Your task to perform on an android device: Do I have any events tomorrow? Image 0: 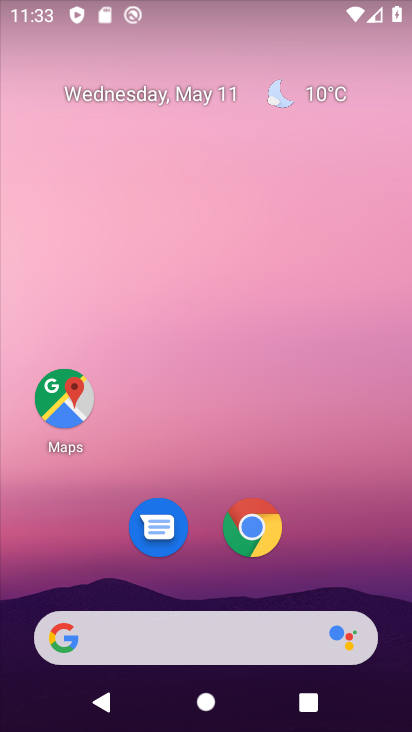
Step 0: drag from (148, 552) to (166, 1)
Your task to perform on an android device: Do I have any events tomorrow? Image 1: 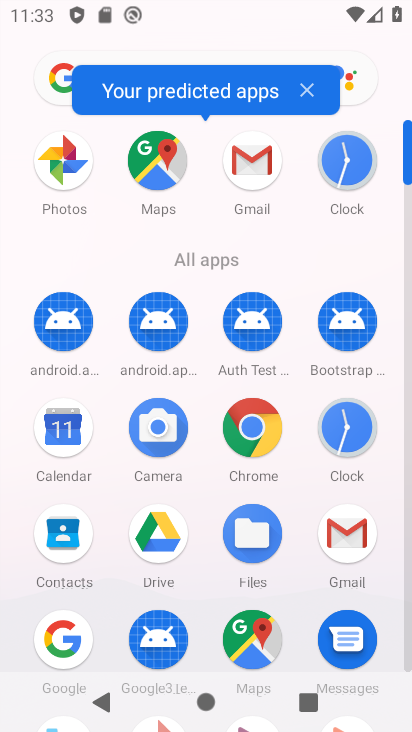
Step 1: click (48, 425)
Your task to perform on an android device: Do I have any events tomorrow? Image 2: 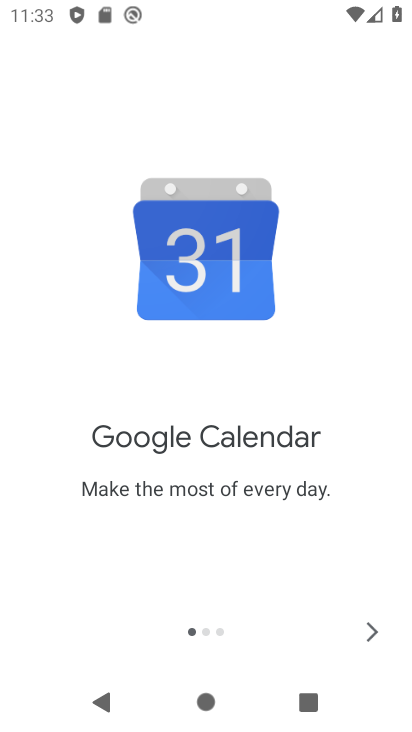
Step 2: click (371, 631)
Your task to perform on an android device: Do I have any events tomorrow? Image 3: 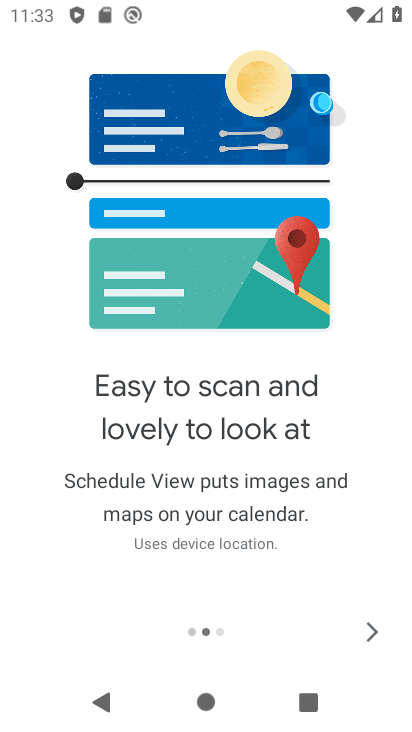
Step 3: click (371, 631)
Your task to perform on an android device: Do I have any events tomorrow? Image 4: 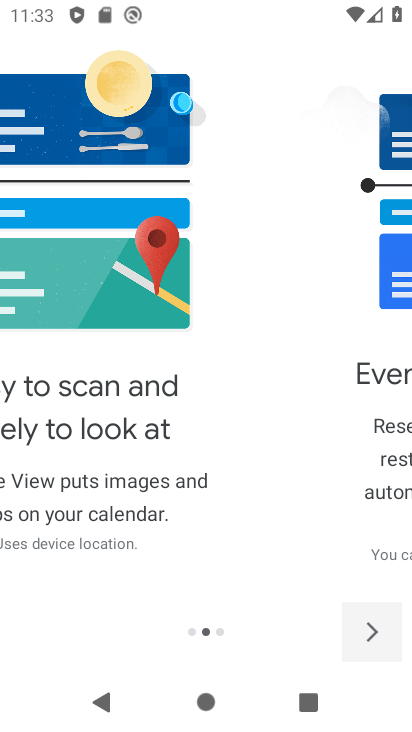
Step 4: click (370, 632)
Your task to perform on an android device: Do I have any events tomorrow? Image 5: 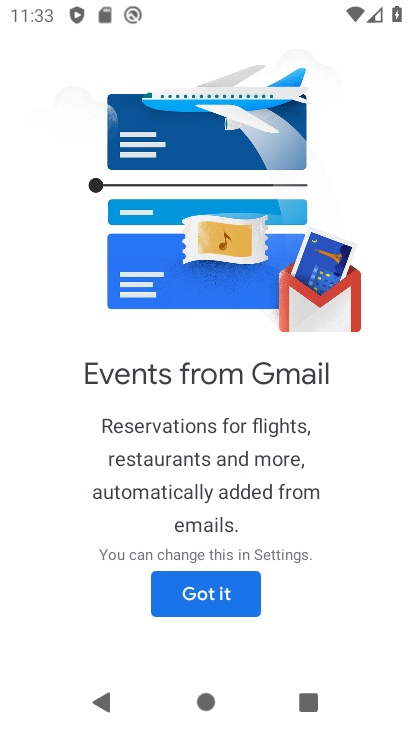
Step 5: click (239, 608)
Your task to perform on an android device: Do I have any events tomorrow? Image 6: 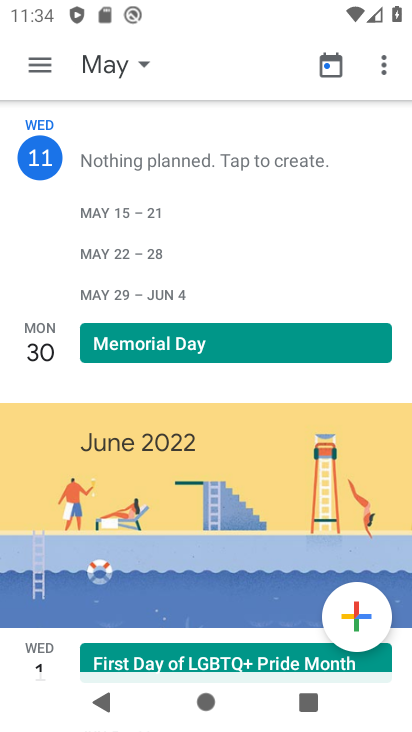
Step 6: click (115, 74)
Your task to perform on an android device: Do I have any events tomorrow? Image 7: 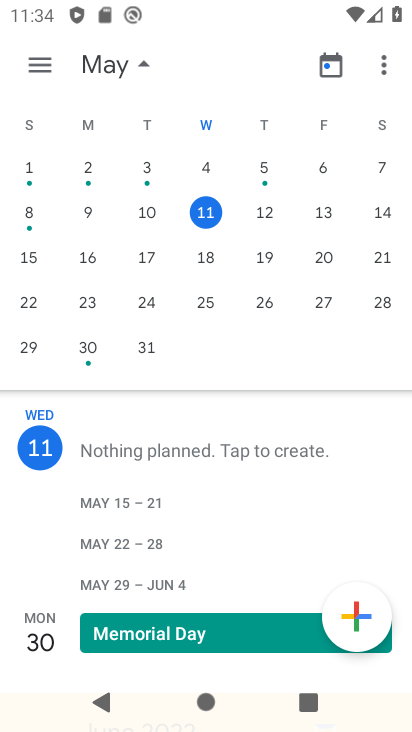
Step 7: click (258, 215)
Your task to perform on an android device: Do I have any events tomorrow? Image 8: 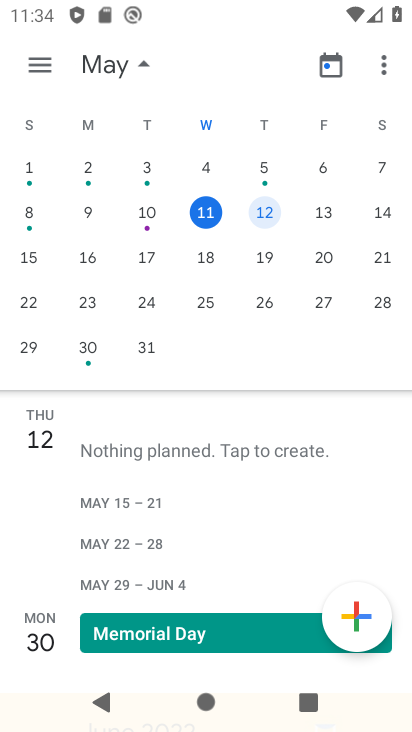
Step 8: task complete